Your task to perform on an android device: show emergency info Image 0: 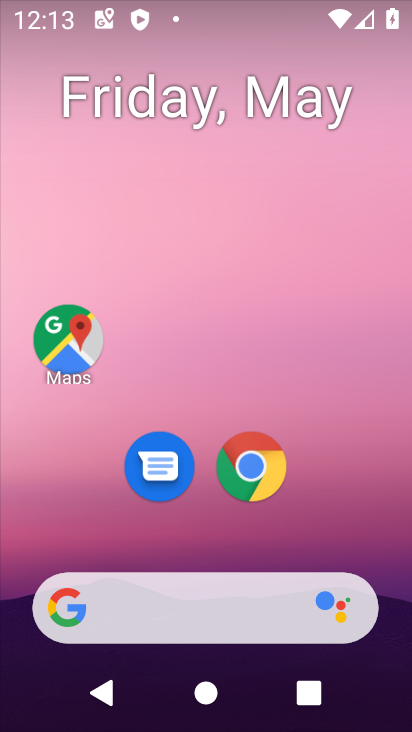
Step 0: drag from (394, 629) to (314, 27)
Your task to perform on an android device: show emergency info Image 1: 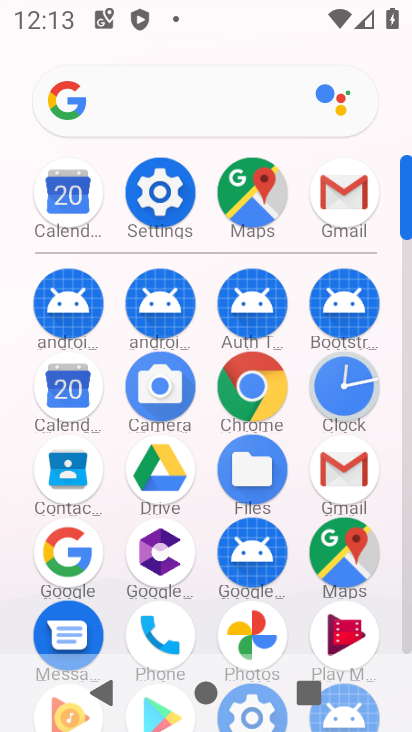
Step 1: click (162, 210)
Your task to perform on an android device: show emergency info Image 2: 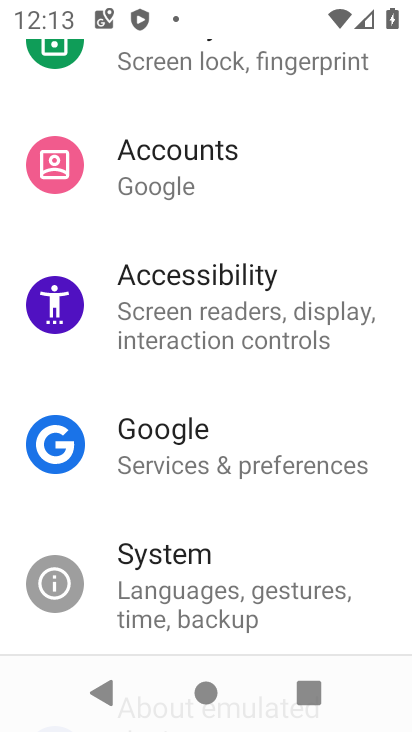
Step 2: drag from (159, 587) to (248, 8)
Your task to perform on an android device: show emergency info Image 3: 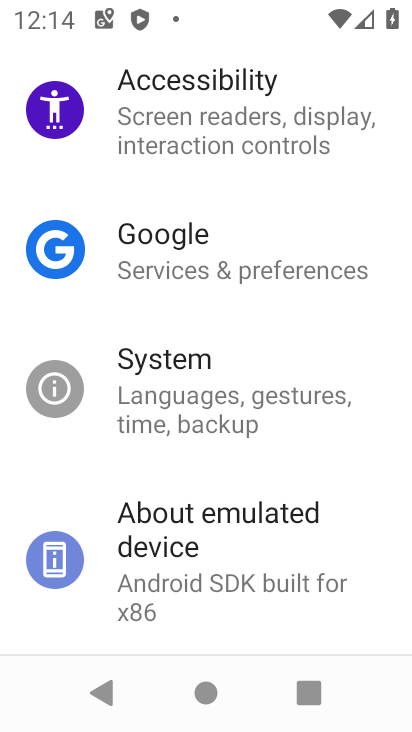
Step 3: click (213, 579)
Your task to perform on an android device: show emergency info Image 4: 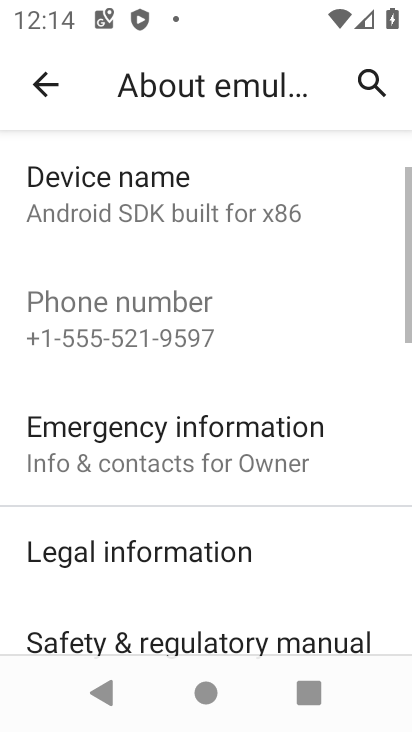
Step 4: click (208, 453)
Your task to perform on an android device: show emergency info Image 5: 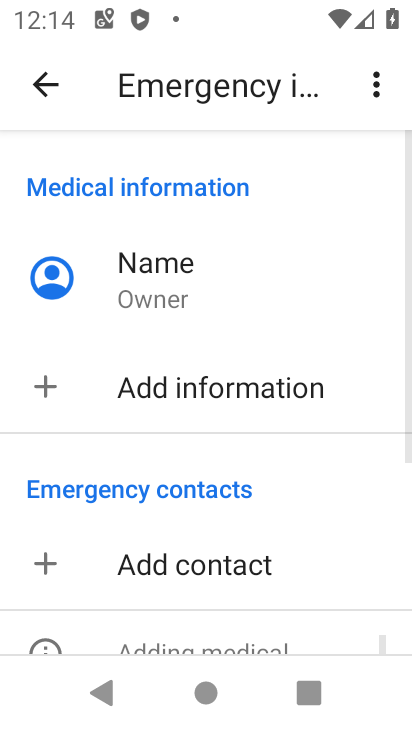
Step 5: task complete